Your task to perform on an android device: turn vacation reply on in the gmail app Image 0: 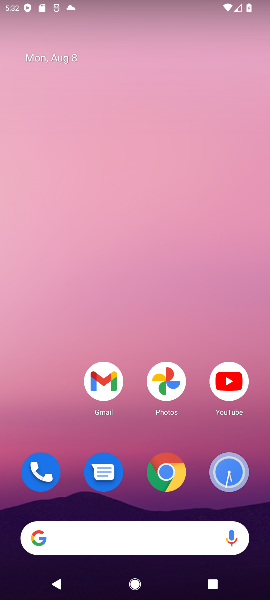
Step 0: press home button
Your task to perform on an android device: turn vacation reply on in the gmail app Image 1: 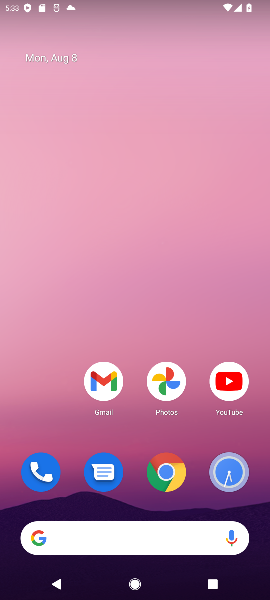
Step 1: click (105, 376)
Your task to perform on an android device: turn vacation reply on in the gmail app Image 2: 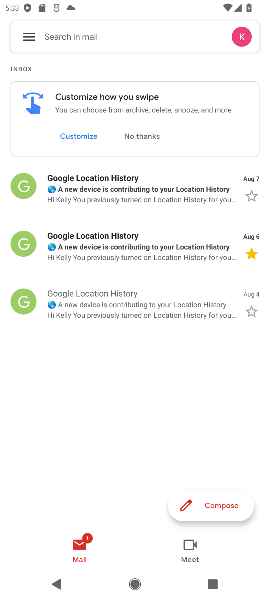
Step 2: click (26, 36)
Your task to perform on an android device: turn vacation reply on in the gmail app Image 3: 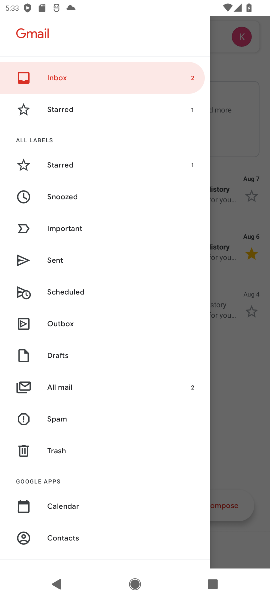
Step 3: drag from (120, 520) to (129, 320)
Your task to perform on an android device: turn vacation reply on in the gmail app Image 4: 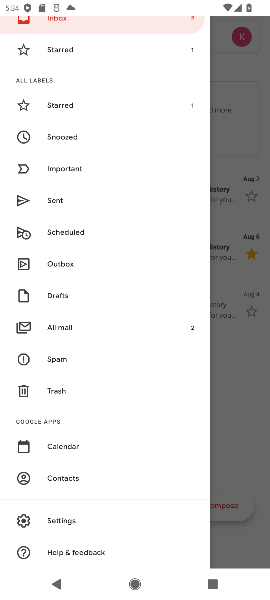
Step 4: click (58, 521)
Your task to perform on an android device: turn vacation reply on in the gmail app Image 5: 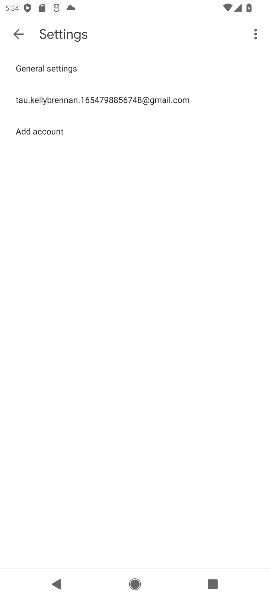
Step 5: click (75, 102)
Your task to perform on an android device: turn vacation reply on in the gmail app Image 6: 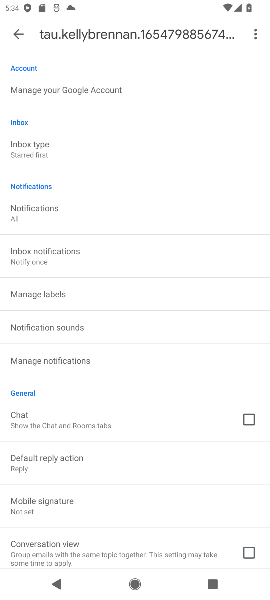
Step 6: drag from (131, 522) to (123, 154)
Your task to perform on an android device: turn vacation reply on in the gmail app Image 7: 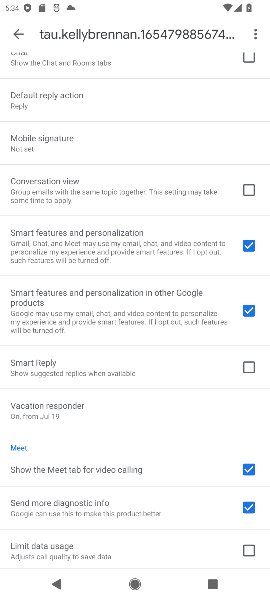
Step 7: drag from (122, 433) to (112, 172)
Your task to perform on an android device: turn vacation reply on in the gmail app Image 8: 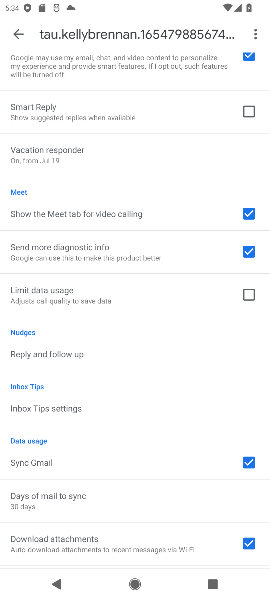
Step 8: drag from (155, 441) to (128, 206)
Your task to perform on an android device: turn vacation reply on in the gmail app Image 9: 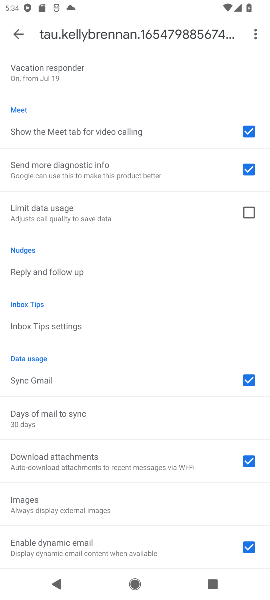
Step 9: drag from (175, 540) to (192, 237)
Your task to perform on an android device: turn vacation reply on in the gmail app Image 10: 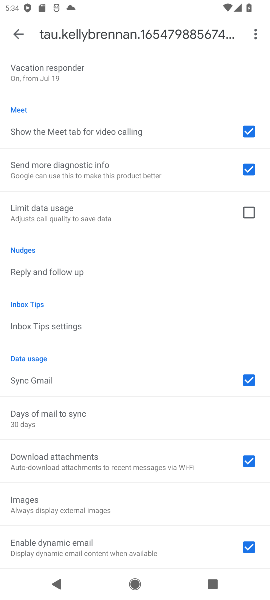
Step 10: drag from (157, 271) to (152, 448)
Your task to perform on an android device: turn vacation reply on in the gmail app Image 11: 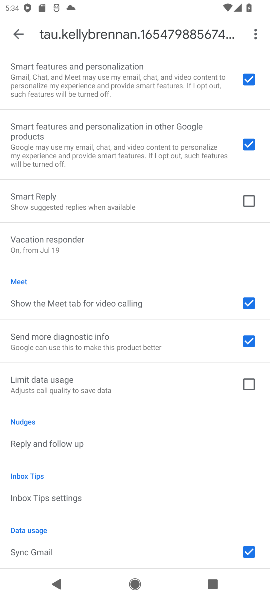
Step 11: click (39, 233)
Your task to perform on an android device: turn vacation reply on in the gmail app Image 12: 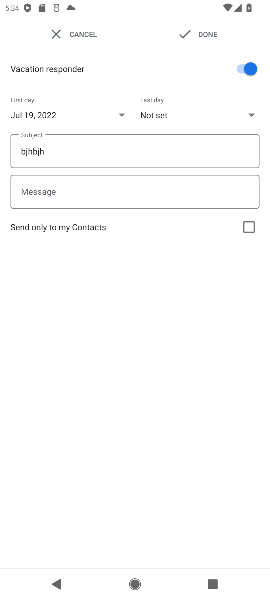
Step 12: task complete